Your task to perform on an android device: see tabs open on other devices in the chrome app Image 0: 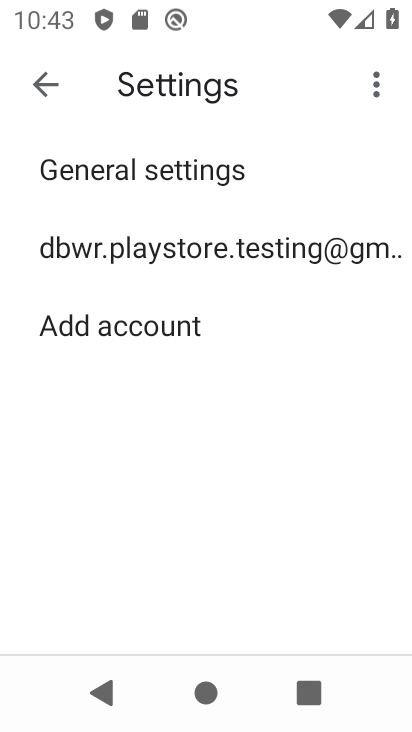
Step 0: press home button
Your task to perform on an android device: see tabs open on other devices in the chrome app Image 1: 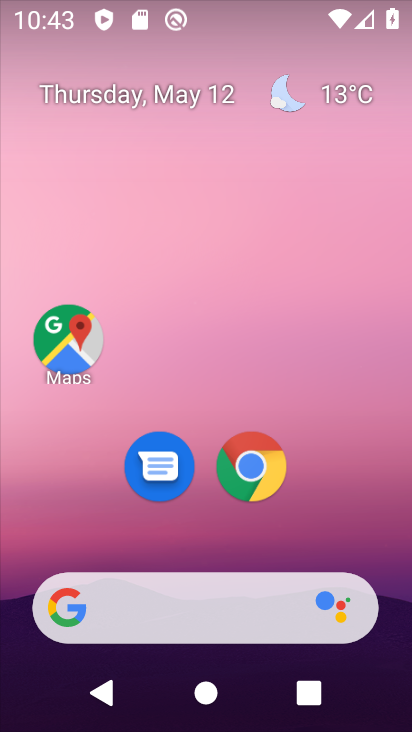
Step 1: drag from (347, 524) to (366, 38)
Your task to perform on an android device: see tabs open on other devices in the chrome app Image 2: 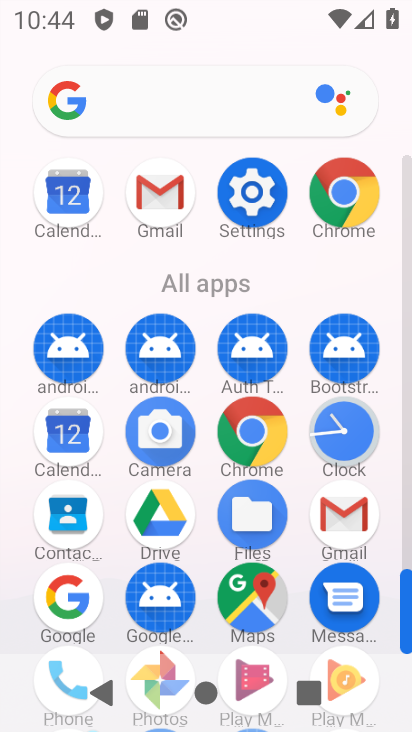
Step 2: click (238, 455)
Your task to perform on an android device: see tabs open on other devices in the chrome app Image 3: 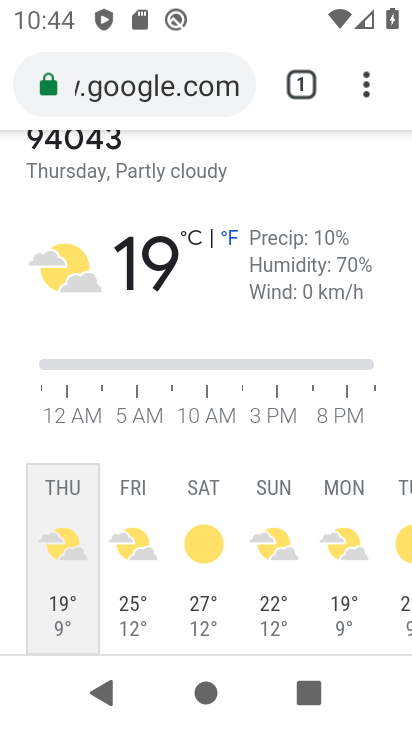
Step 3: click (304, 91)
Your task to perform on an android device: see tabs open on other devices in the chrome app Image 4: 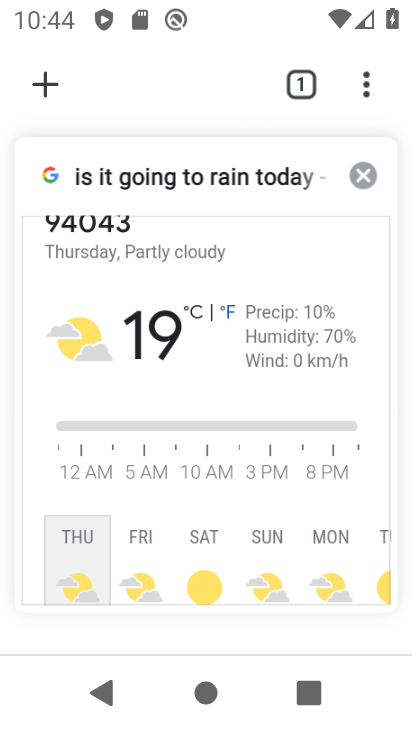
Step 4: click (52, 93)
Your task to perform on an android device: see tabs open on other devices in the chrome app Image 5: 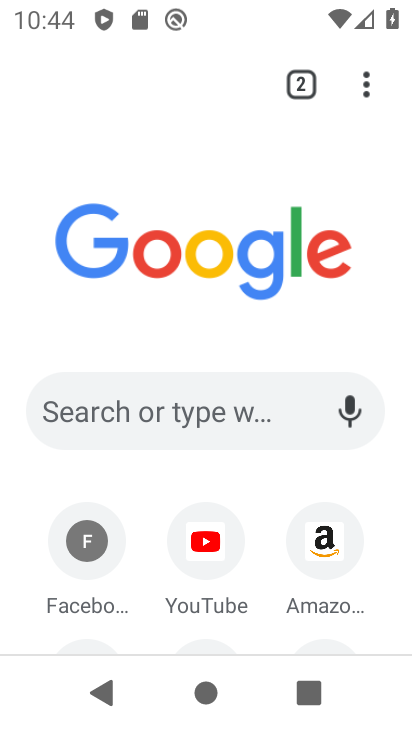
Step 5: task complete